Your task to perform on an android device: check out phone information Image 0: 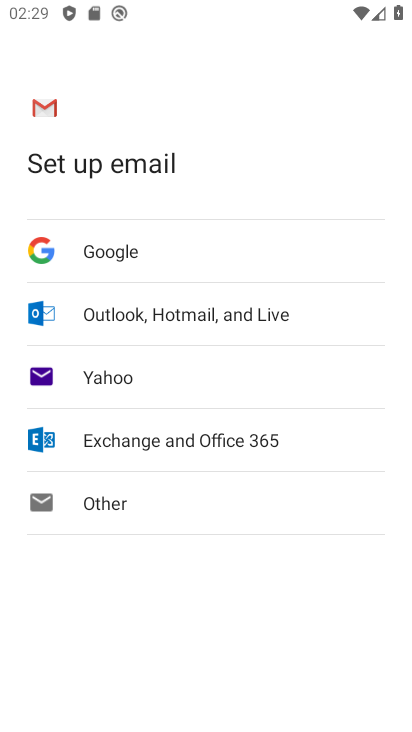
Step 0: press home button
Your task to perform on an android device: check out phone information Image 1: 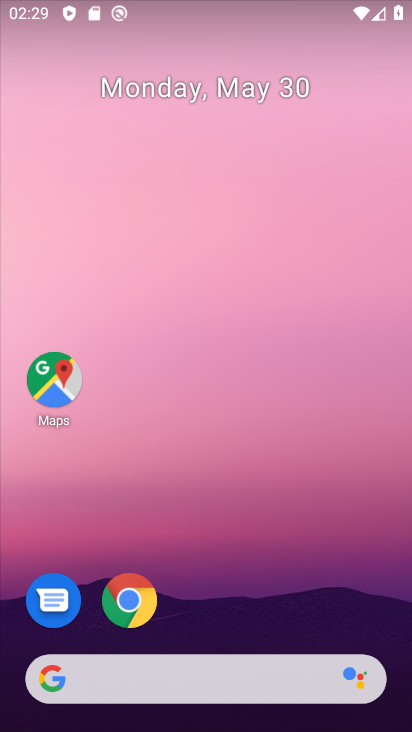
Step 1: click (280, 608)
Your task to perform on an android device: check out phone information Image 2: 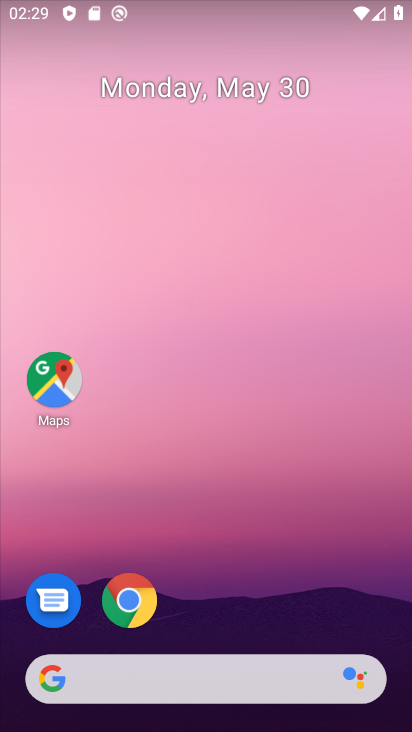
Step 2: drag from (280, 608) to (247, 27)
Your task to perform on an android device: check out phone information Image 3: 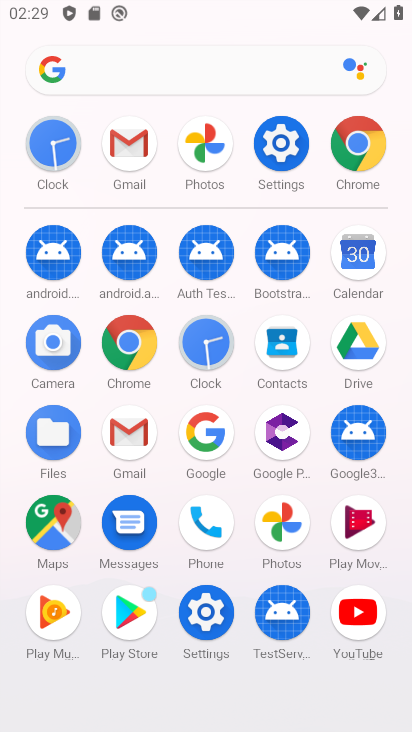
Step 3: click (282, 147)
Your task to perform on an android device: check out phone information Image 4: 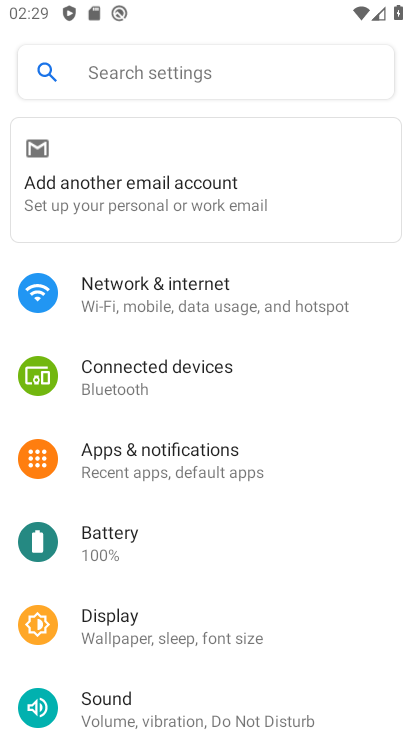
Step 4: drag from (225, 603) to (308, 115)
Your task to perform on an android device: check out phone information Image 5: 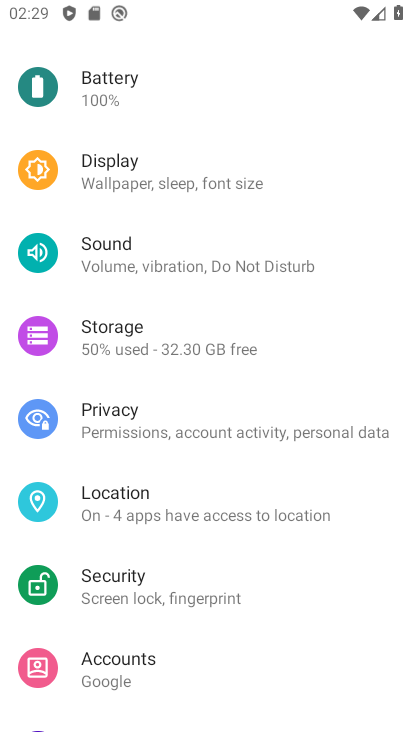
Step 5: drag from (214, 659) to (251, 278)
Your task to perform on an android device: check out phone information Image 6: 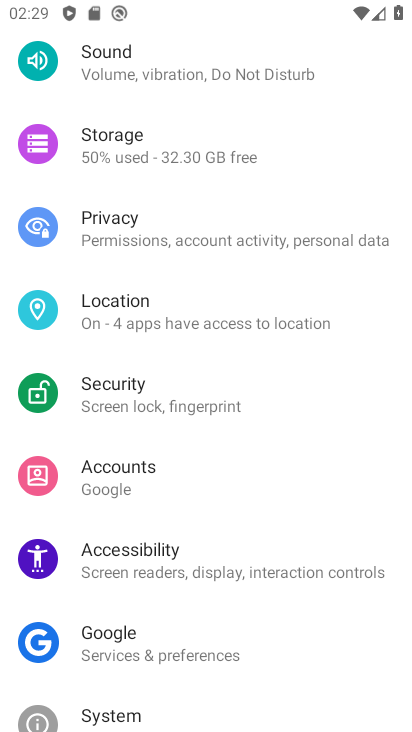
Step 6: drag from (216, 695) to (291, 83)
Your task to perform on an android device: check out phone information Image 7: 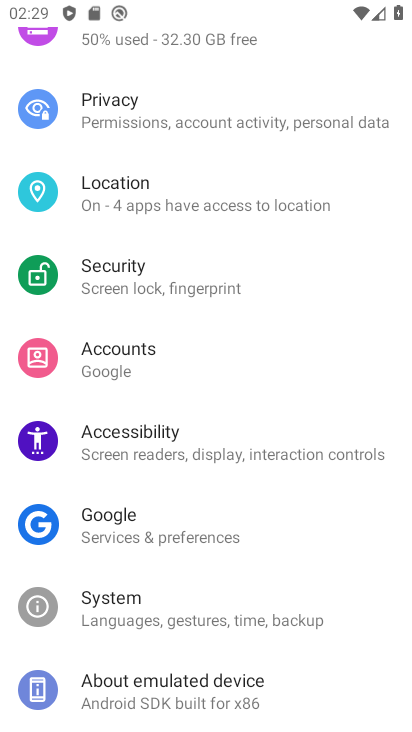
Step 7: click (175, 683)
Your task to perform on an android device: check out phone information Image 8: 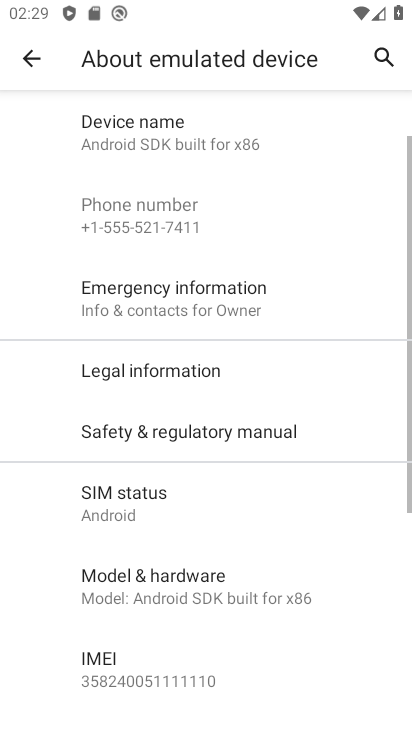
Step 8: click (176, 588)
Your task to perform on an android device: check out phone information Image 9: 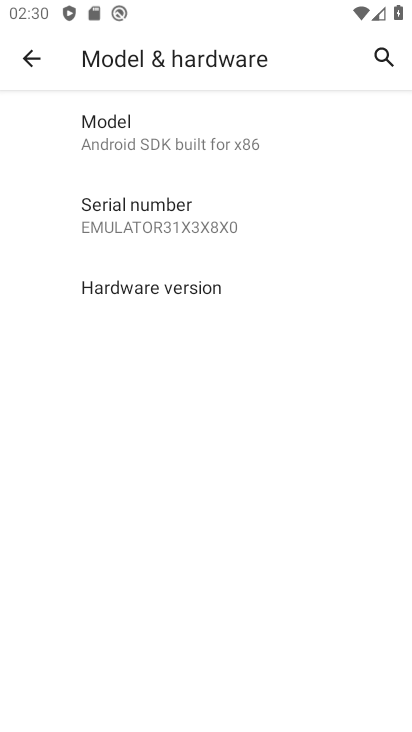
Step 9: task complete